Your task to perform on an android device: open app "TextNow: Call + Text Unlimited" (install if not already installed), go to login, and select forgot password Image 0: 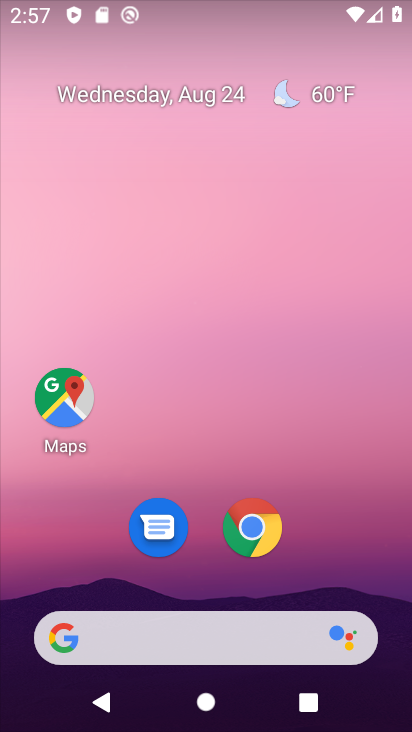
Step 0: drag from (189, 583) to (181, 89)
Your task to perform on an android device: open app "TextNow: Call + Text Unlimited" (install if not already installed), go to login, and select forgot password Image 1: 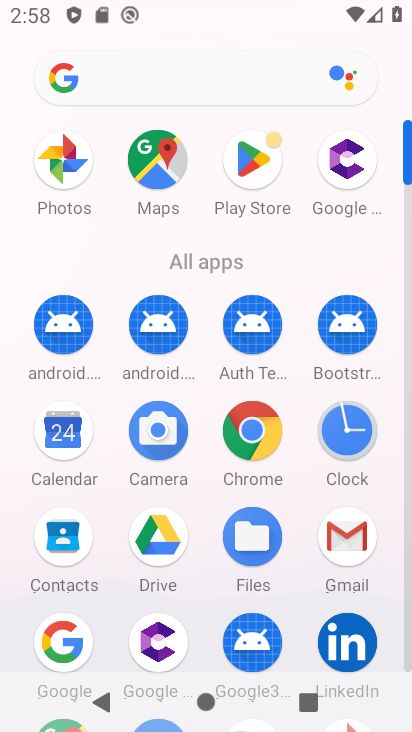
Step 1: task complete